Your task to perform on an android device: stop showing notifications on the lock screen Image 0: 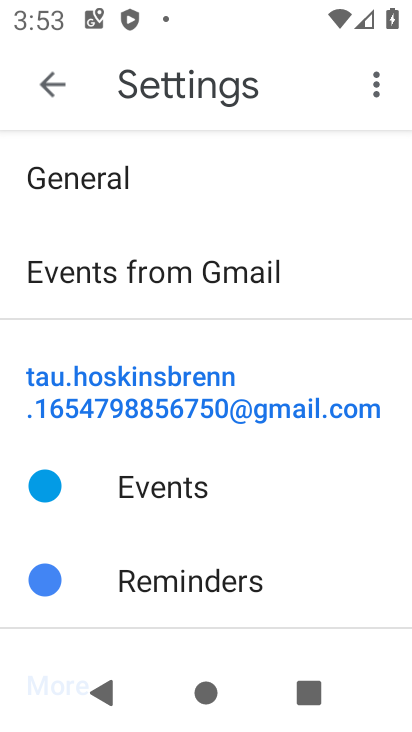
Step 0: press home button
Your task to perform on an android device: stop showing notifications on the lock screen Image 1: 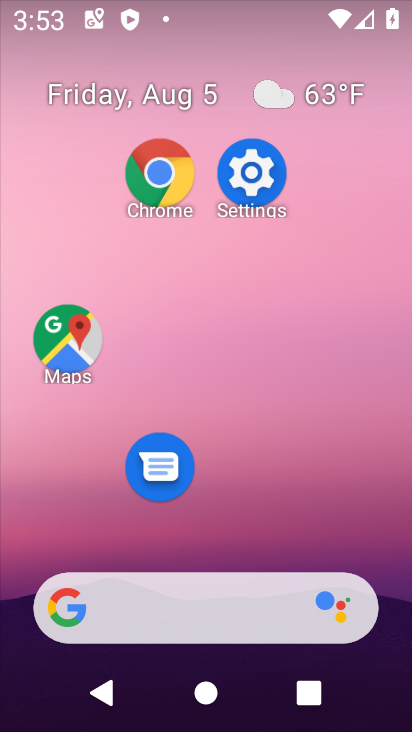
Step 1: drag from (261, 511) to (348, 86)
Your task to perform on an android device: stop showing notifications on the lock screen Image 2: 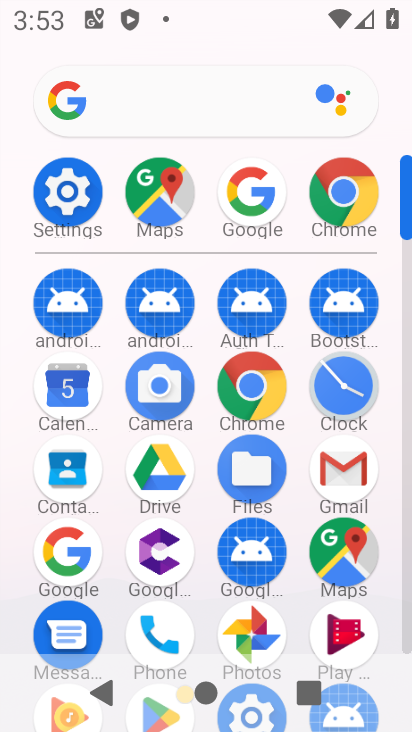
Step 2: click (58, 183)
Your task to perform on an android device: stop showing notifications on the lock screen Image 3: 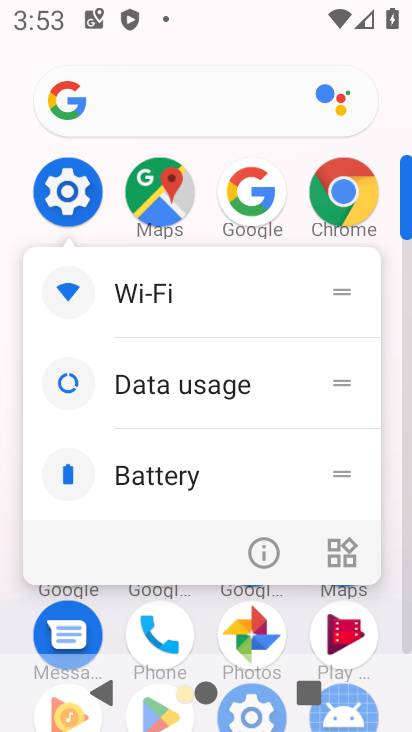
Step 3: click (58, 183)
Your task to perform on an android device: stop showing notifications on the lock screen Image 4: 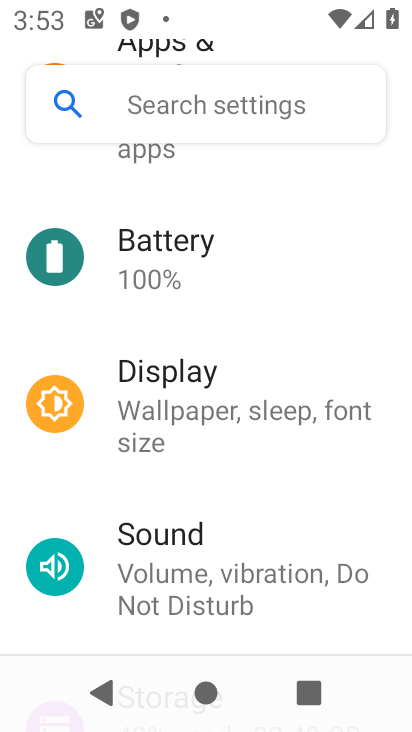
Step 4: drag from (173, 220) to (141, 548)
Your task to perform on an android device: stop showing notifications on the lock screen Image 5: 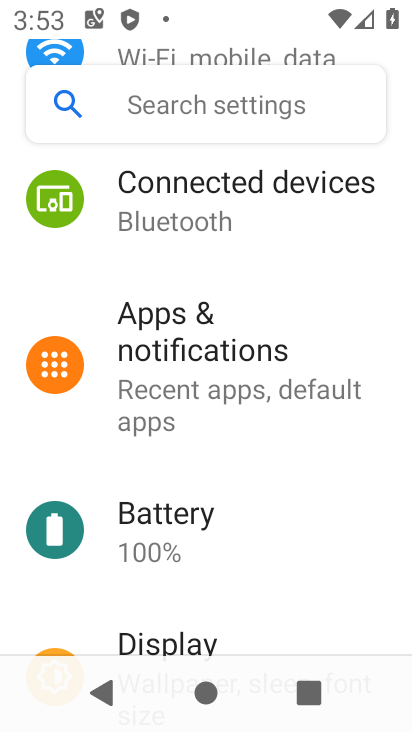
Step 5: click (155, 349)
Your task to perform on an android device: stop showing notifications on the lock screen Image 6: 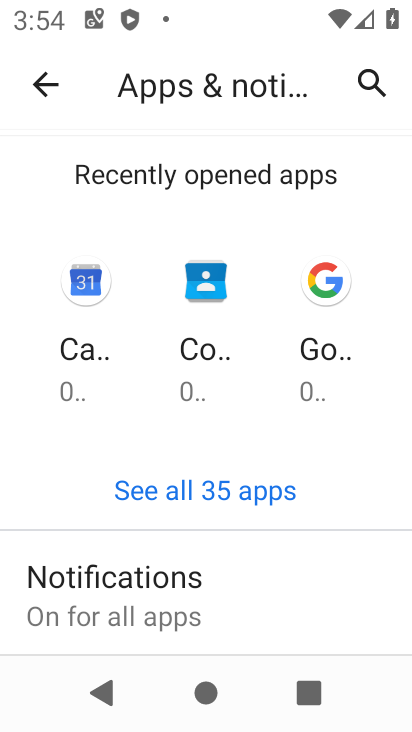
Step 6: click (129, 584)
Your task to perform on an android device: stop showing notifications on the lock screen Image 7: 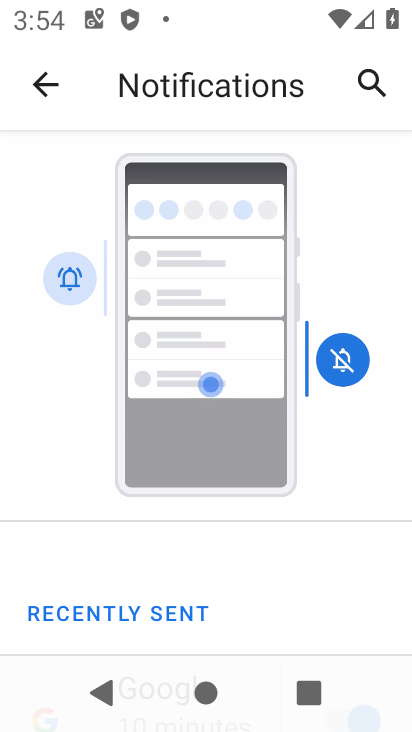
Step 7: drag from (237, 582) to (203, 299)
Your task to perform on an android device: stop showing notifications on the lock screen Image 8: 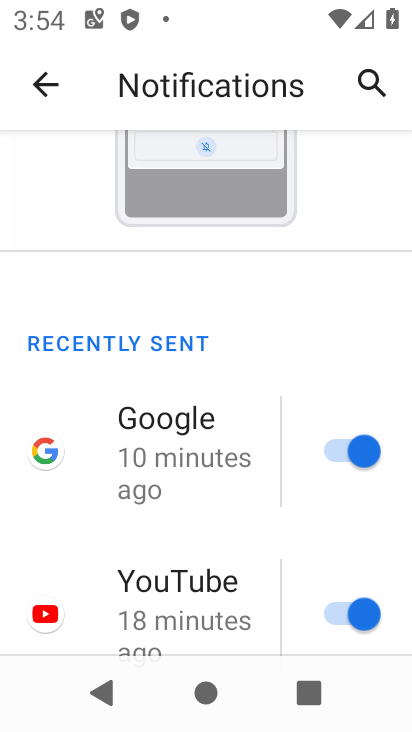
Step 8: drag from (226, 571) to (191, 254)
Your task to perform on an android device: stop showing notifications on the lock screen Image 9: 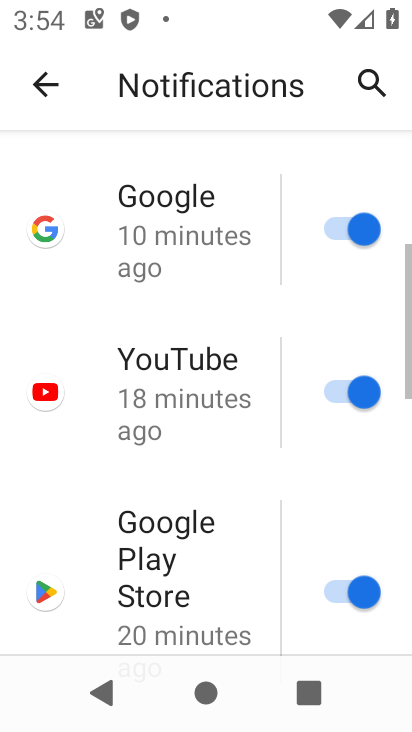
Step 9: drag from (222, 580) to (156, 214)
Your task to perform on an android device: stop showing notifications on the lock screen Image 10: 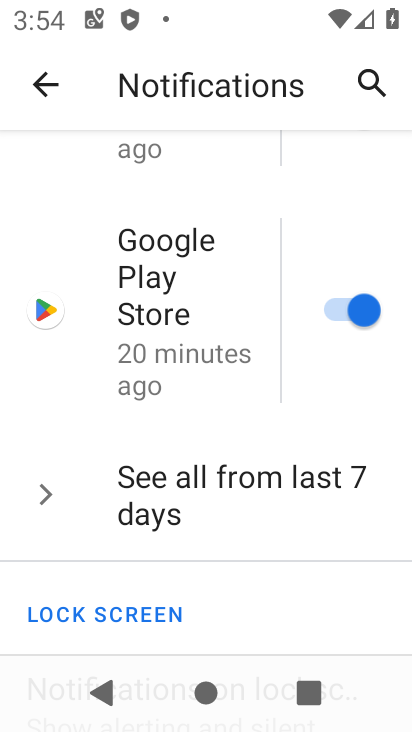
Step 10: drag from (205, 574) to (170, 248)
Your task to perform on an android device: stop showing notifications on the lock screen Image 11: 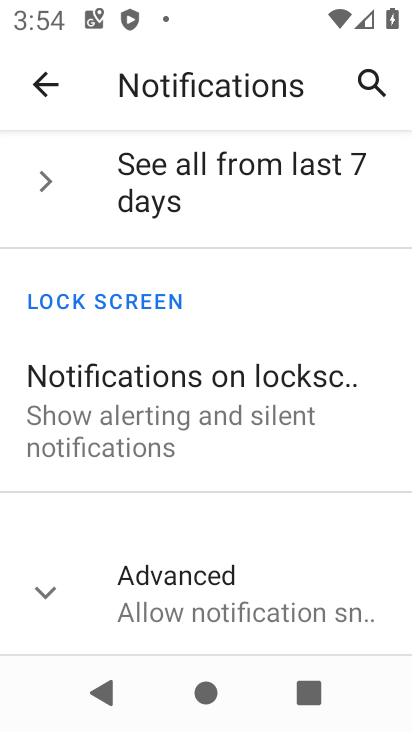
Step 11: click (182, 394)
Your task to perform on an android device: stop showing notifications on the lock screen Image 12: 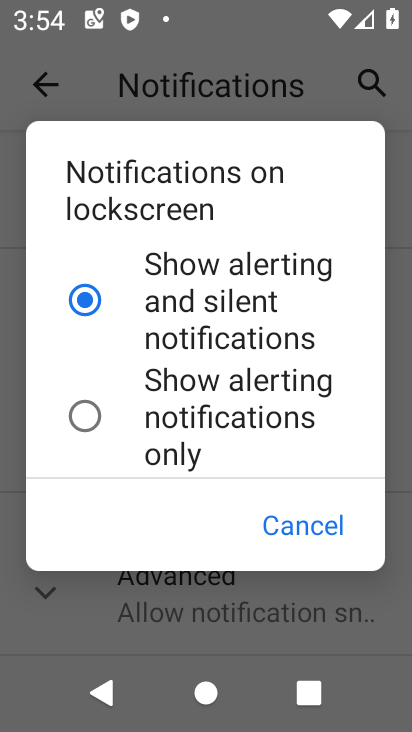
Step 12: drag from (182, 428) to (185, 273)
Your task to perform on an android device: stop showing notifications on the lock screen Image 13: 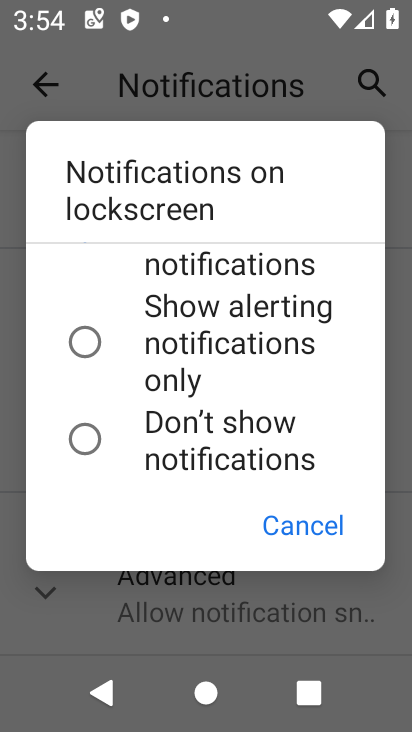
Step 13: click (187, 446)
Your task to perform on an android device: stop showing notifications on the lock screen Image 14: 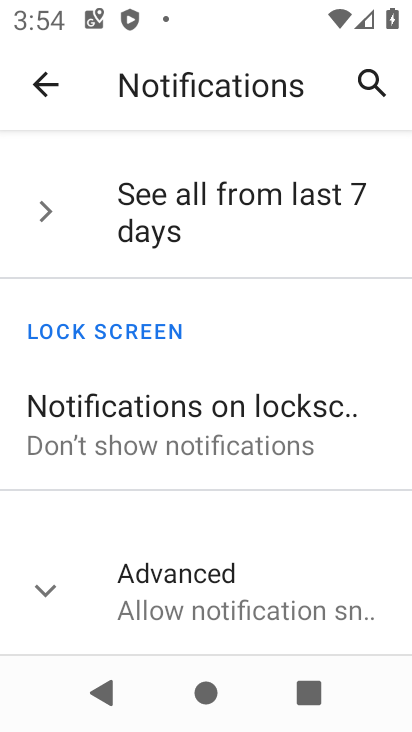
Step 14: task complete